Your task to perform on an android device: change the clock display to digital Image 0: 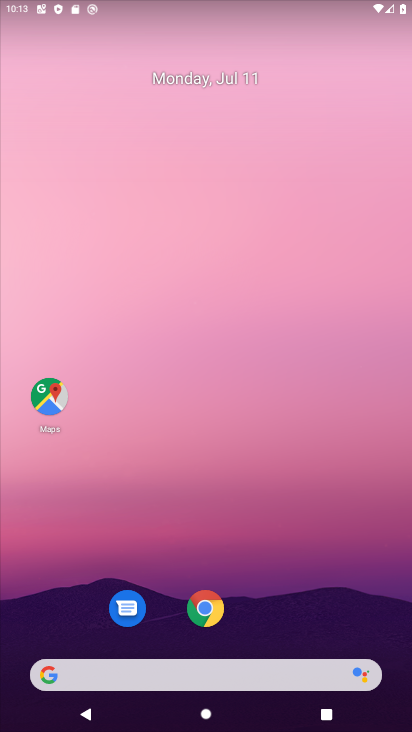
Step 0: drag from (43, 662) to (181, 229)
Your task to perform on an android device: change the clock display to digital Image 1: 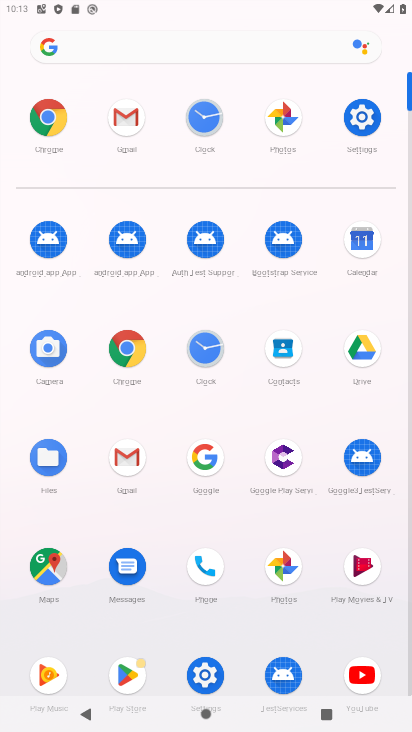
Step 1: click (213, 344)
Your task to perform on an android device: change the clock display to digital Image 2: 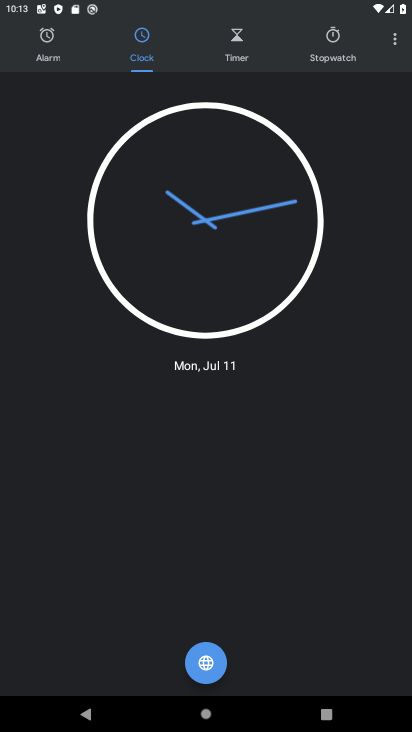
Step 2: click (387, 32)
Your task to perform on an android device: change the clock display to digital Image 3: 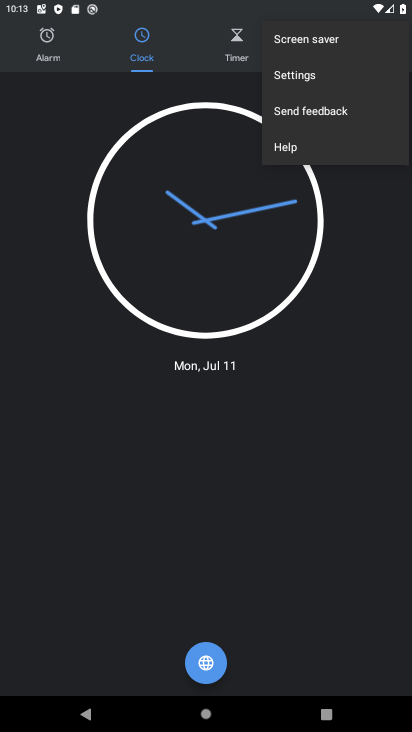
Step 3: click (301, 82)
Your task to perform on an android device: change the clock display to digital Image 4: 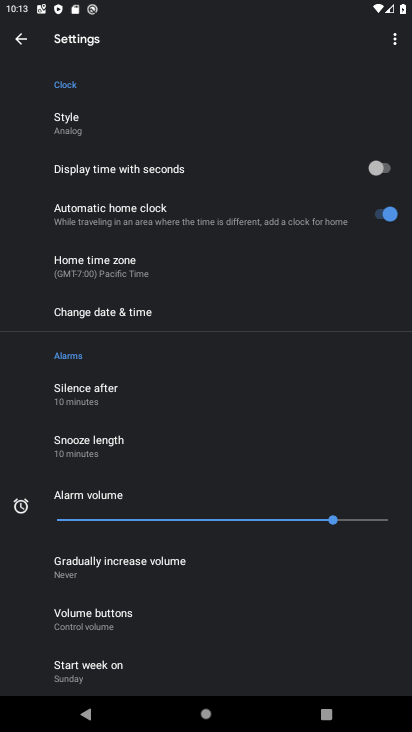
Step 4: click (66, 137)
Your task to perform on an android device: change the clock display to digital Image 5: 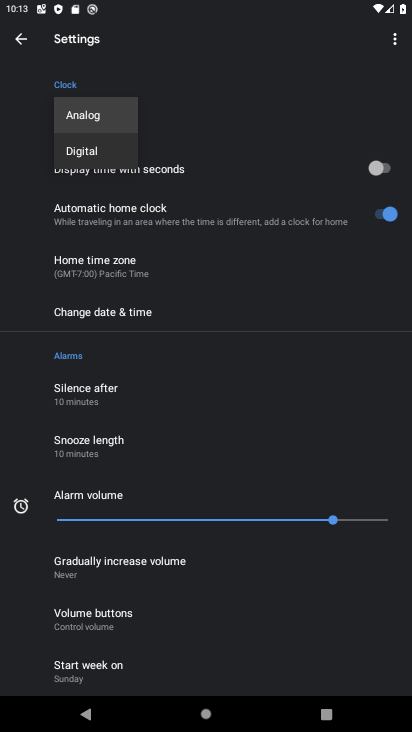
Step 5: click (70, 158)
Your task to perform on an android device: change the clock display to digital Image 6: 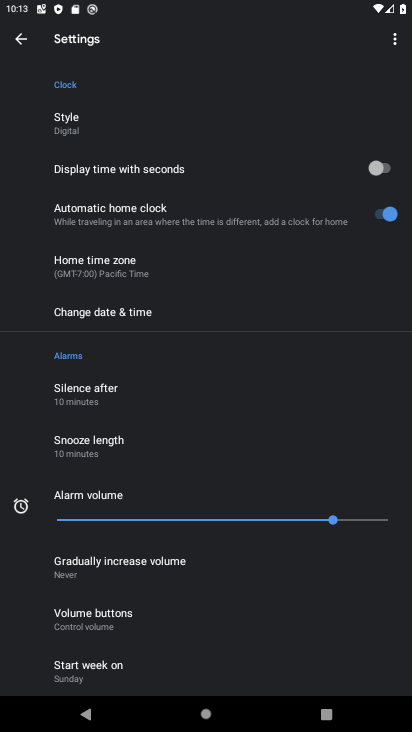
Step 6: task complete